Your task to perform on an android device: Go to Maps Image 0: 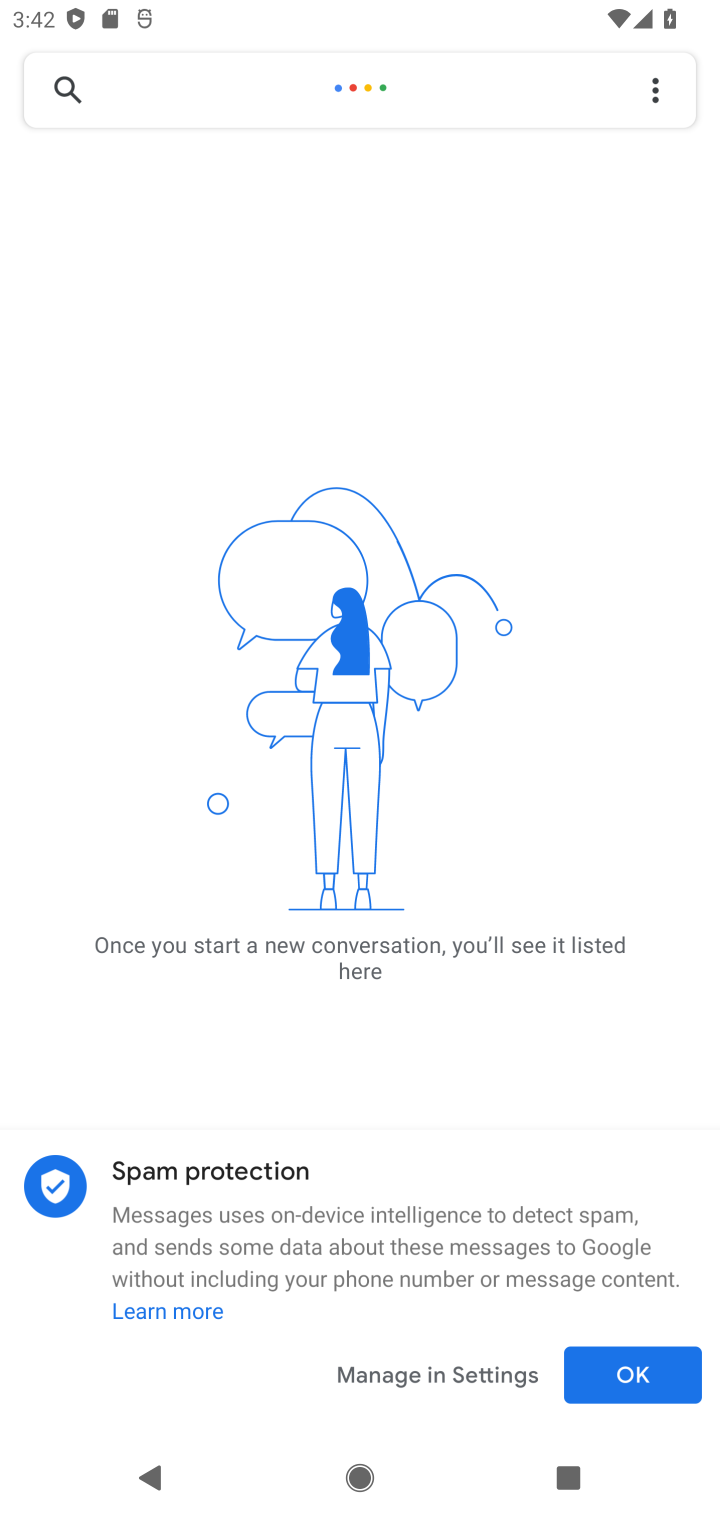
Step 0: press home button
Your task to perform on an android device: Go to Maps Image 1: 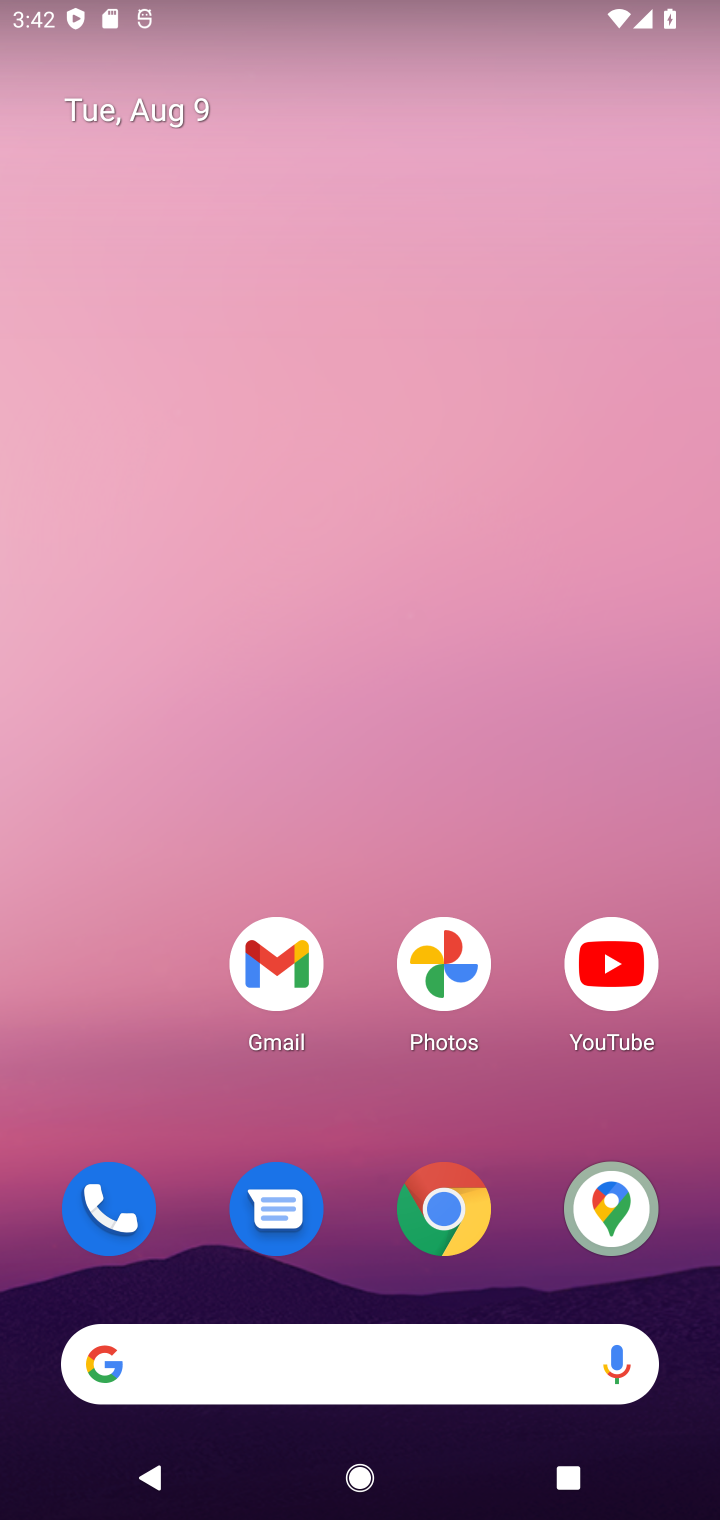
Step 1: click (613, 1197)
Your task to perform on an android device: Go to Maps Image 2: 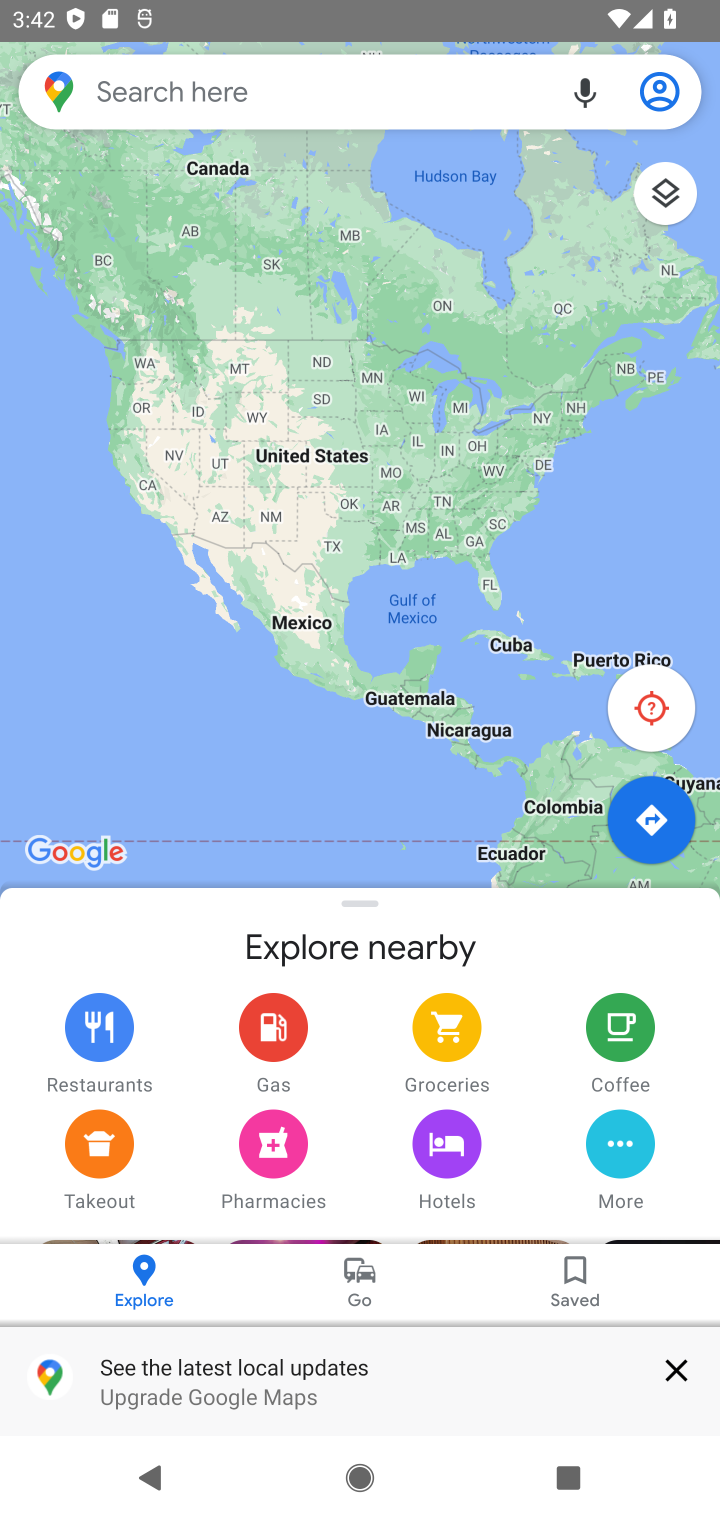
Step 2: task complete